Your task to perform on an android device: turn notification dots on Image 0: 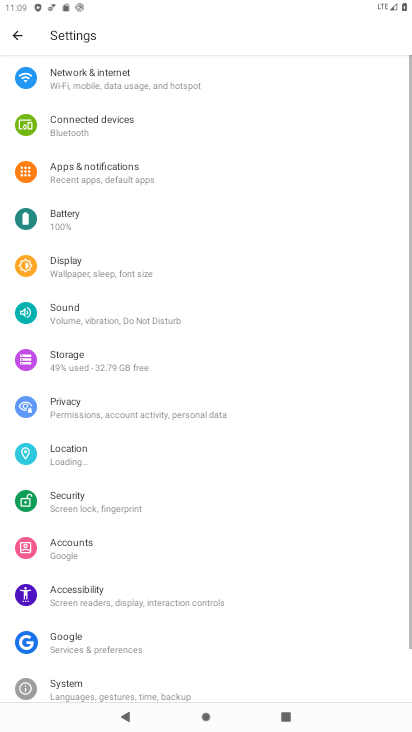
Step 0: press home button
Your task to perform on an android device: turn notification dots on Image 1: 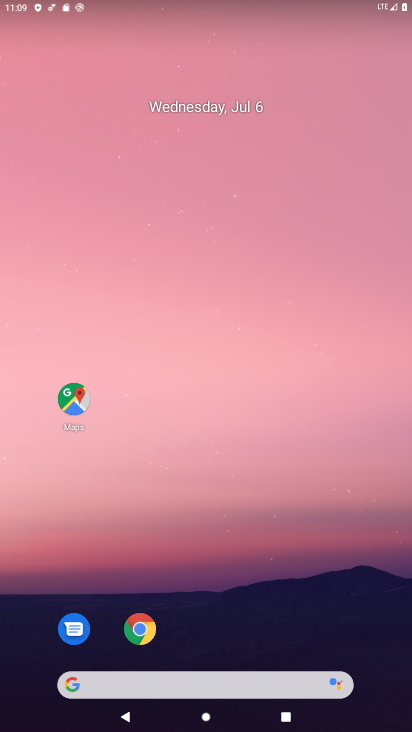
Step 1: drag from (235, 638) to (225, 121)
Your task to perform on an android device: turn notification dots on Image 2: 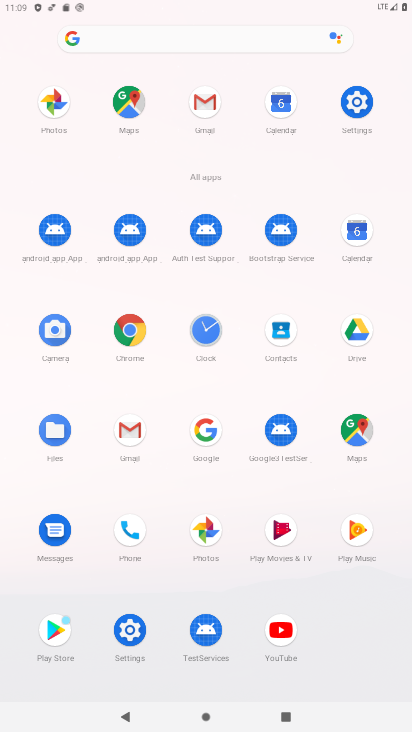
Step 2: click (349, 100)
Your task to perform on an android device: turn notification dots on Image 3: 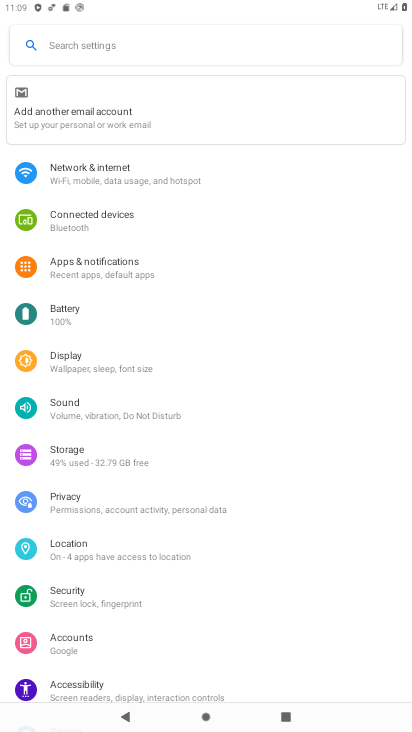
Step 3: click (157, 260)
Your task to perform on an android device: turn notification dots on Image 4: 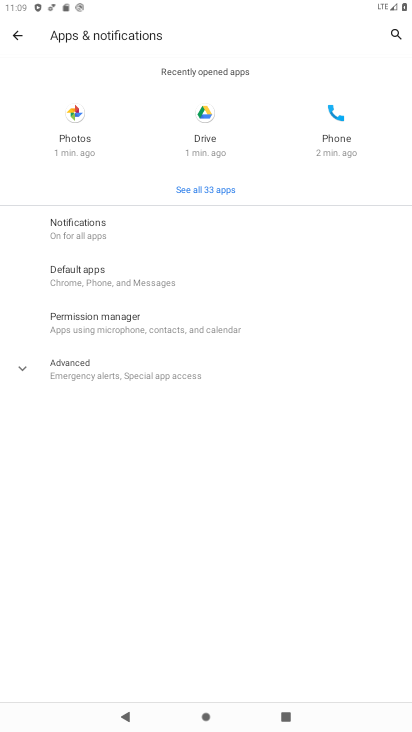
Step 4: click (137, 243)
Your task to perform on an android device: turn notification dots on Image 5: 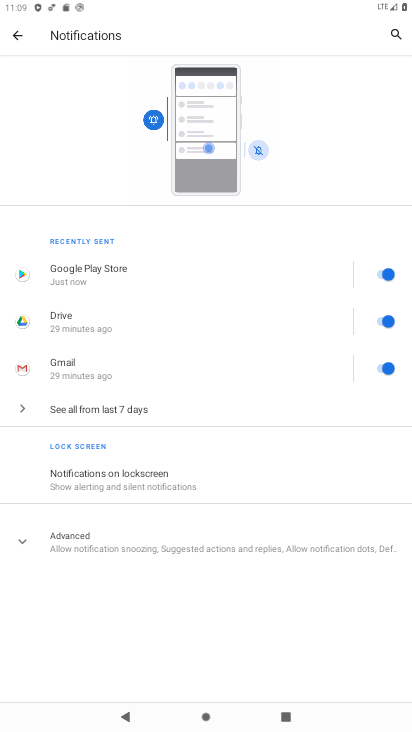
Step 5: click (196, 549)
Your task to perform on an android device: turn notification dots on Image 6: 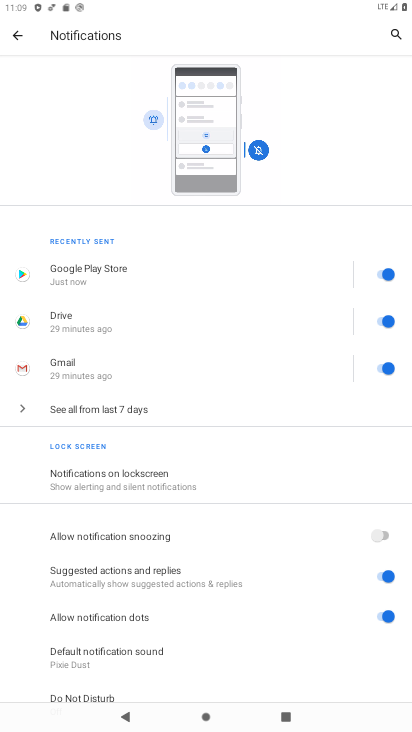
Step 6: task complete